Your task to perform on an android device: What's the weather today? Image 0: 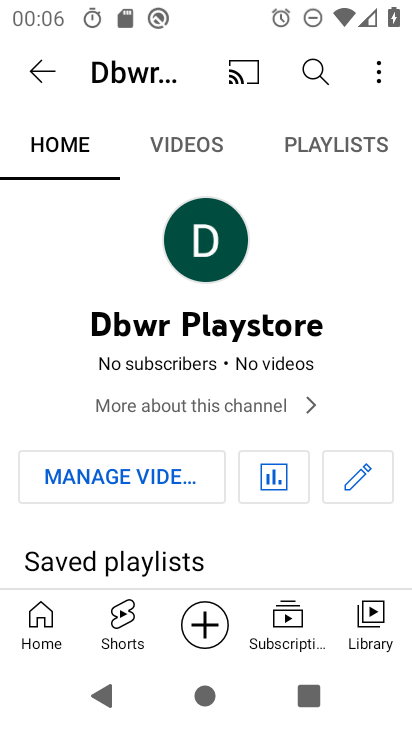
Step 0: press home button
Your task to perform on an android device: What's the weather today? Image 1: 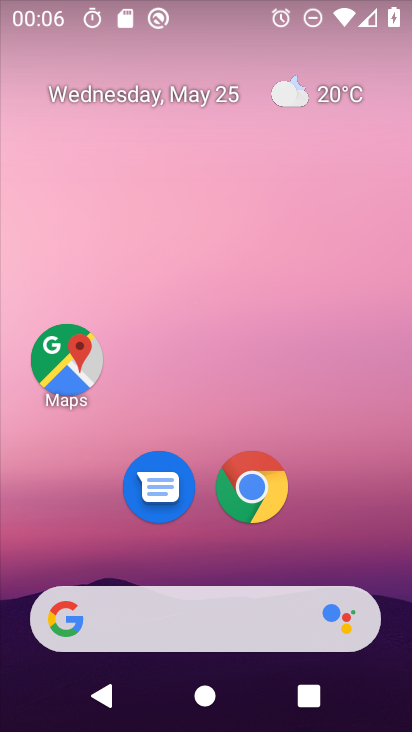
Step 1: click (326, 103)
Your task to perform on an android device: What's the weather today? Image 2: 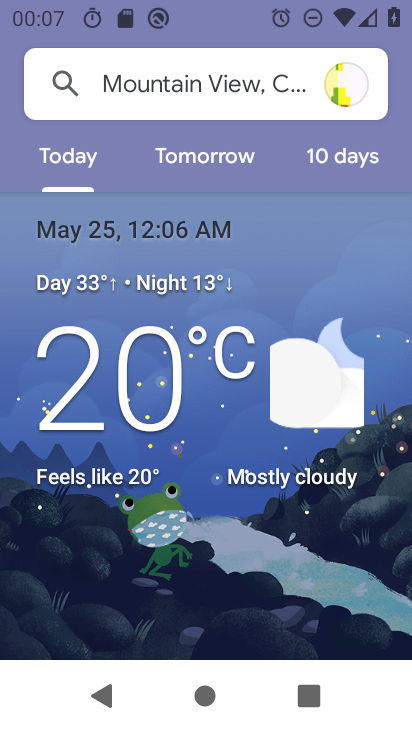
Step 2: task complete